Your task to perform on an android device: toggle translation in the chrome app Image 0: 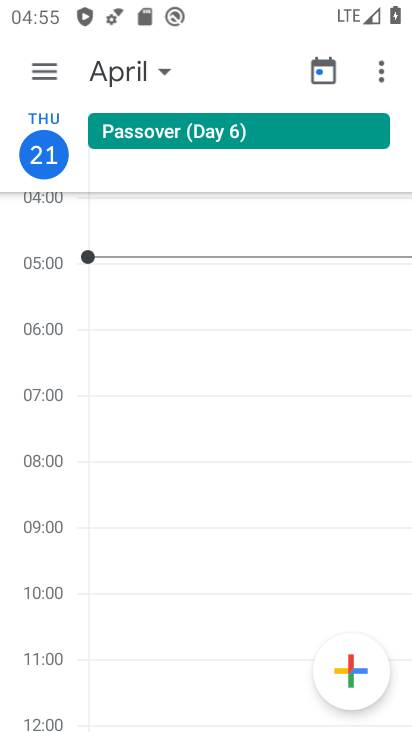
Step 0: press home button
Your task to perform on an android device: toggle translation in the chrome app Image 1: 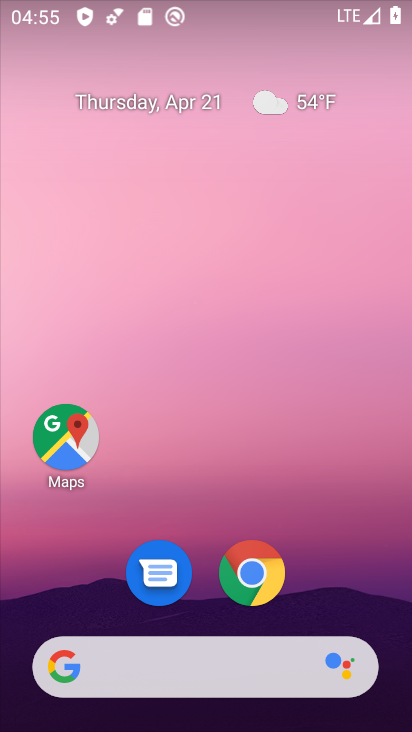
Step 1: click (248, 570)
Your task to perform on an android device: toggle translation in the chrome app Image 2: 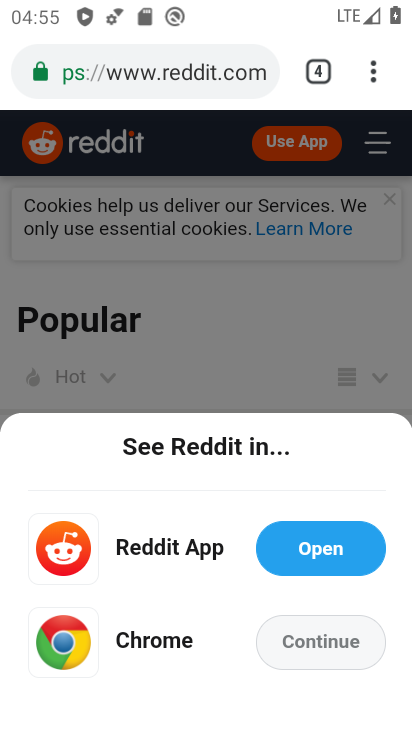
Step 2: click (372, 76)
Your task to perform on an android device: toggle translation in the chrome app Image 3: 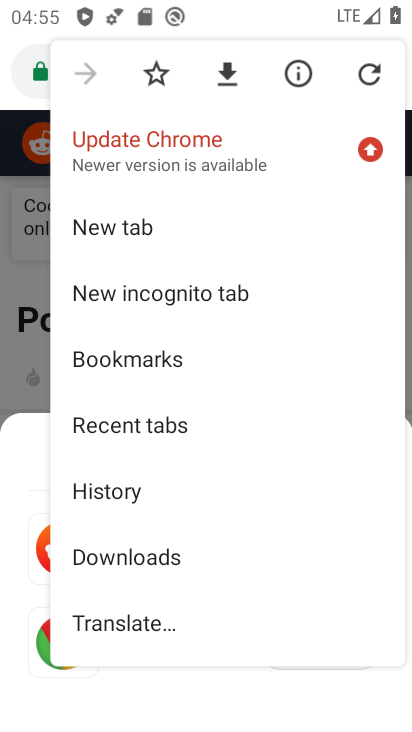
Step 3: drag from (256, 539) to (285, 312)
Your task to perform on an android device: toggle translation in the chrome app Image 4: 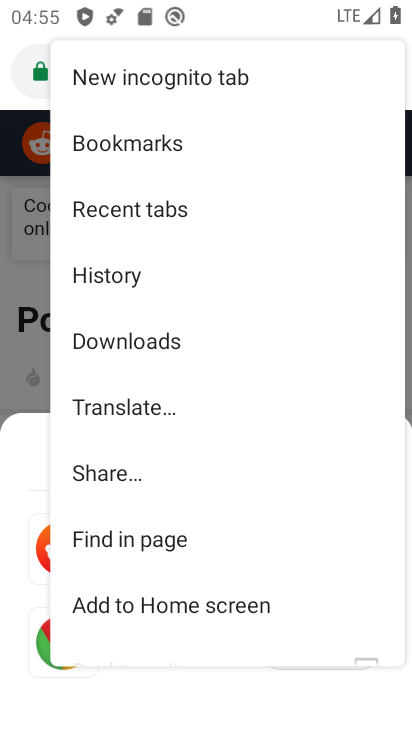
Step 4: drag from (265, 571) to (254, 298)
Your task to perform on an android device: toggle translation in the chrome app Image 5: 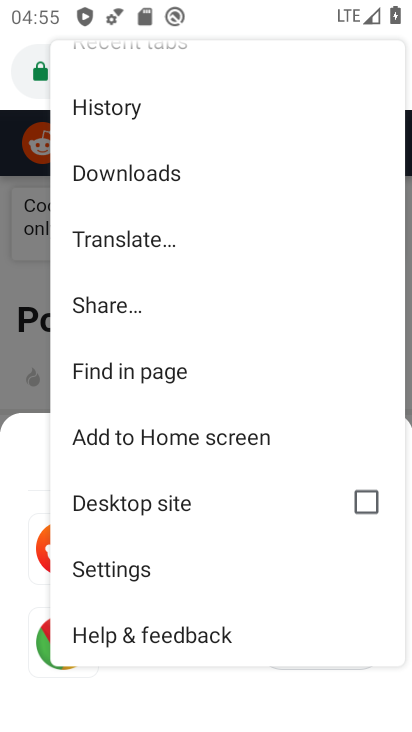
Step 5: click (109, 571)
Your task to perform on an android device: toggle translation in the chrome app Image 6: 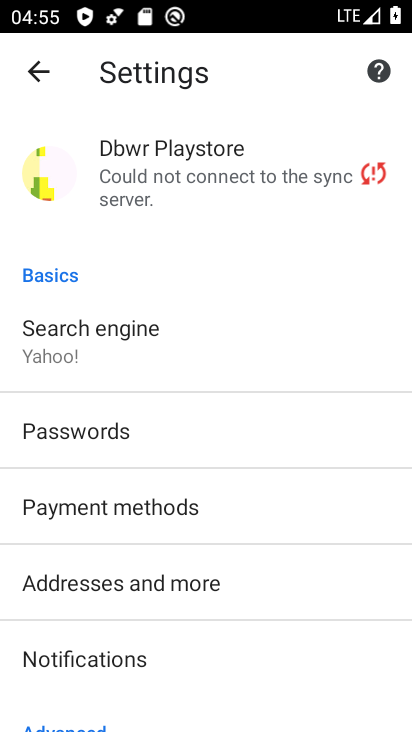
Step 6: drag from (257, 615) to (267, 331)
Your task to perform on an android device: toggle translation in the chrome app Image 7: 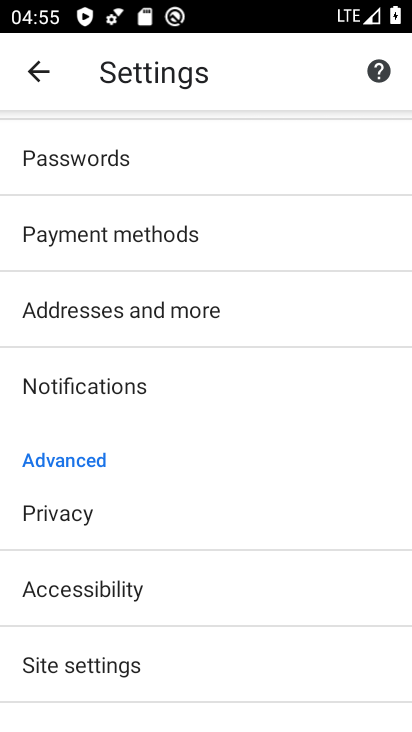
Step 7: drag from (281, 565) to (286, 269)
Your task to perform on an android device: toggle translation in the chrome app Image 8: 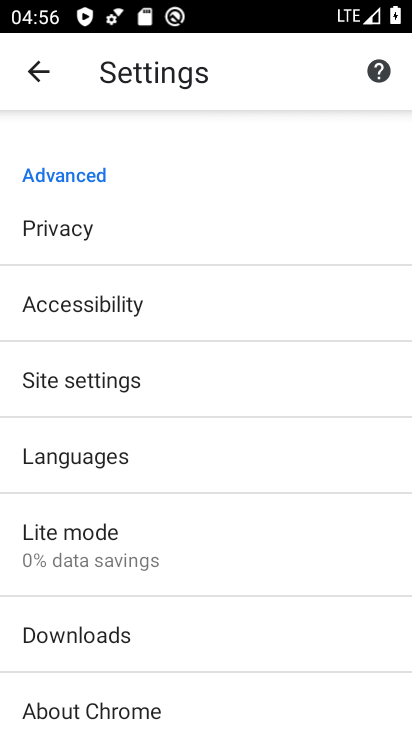
Step 8: click (58, 457)
Your task to perform on an android device: toggle translation in the chrome app Image 9: 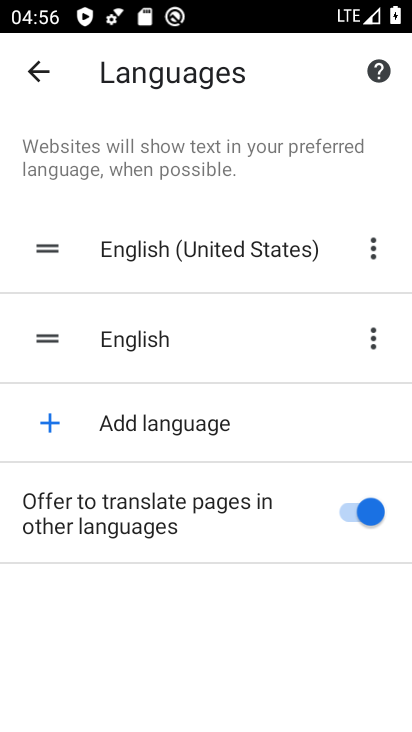
Step 9: click (345, 508)
Your task to perform on an android device: toggle translation in the chrome app Image 10: 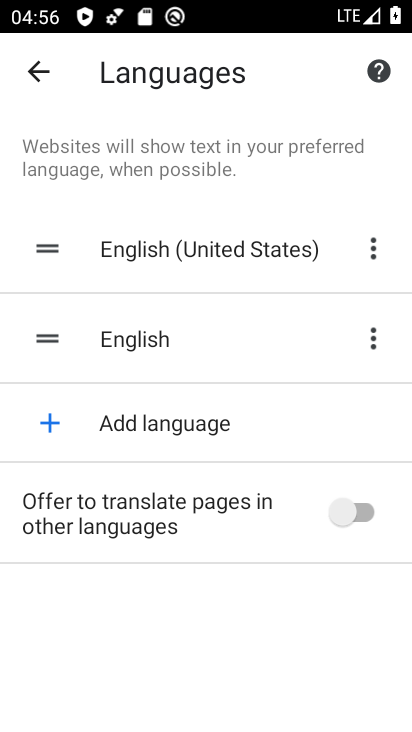
Step 10: task complete